Your task to perform on an android device: check storage Image 0: 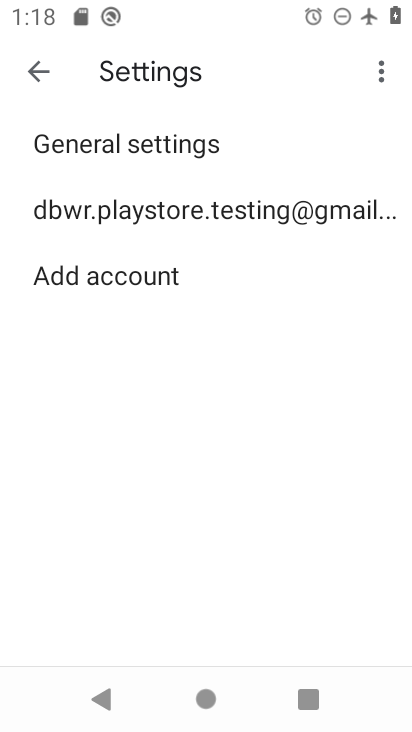
Step 0: press home button
Your task to perform on an android device: check storage Image 1: 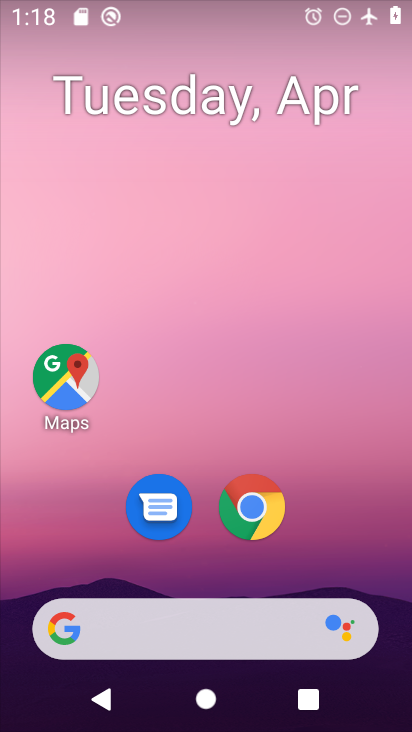
Step 1: click (260, 511)
Your task to perform on an android device: check storage Image 2: 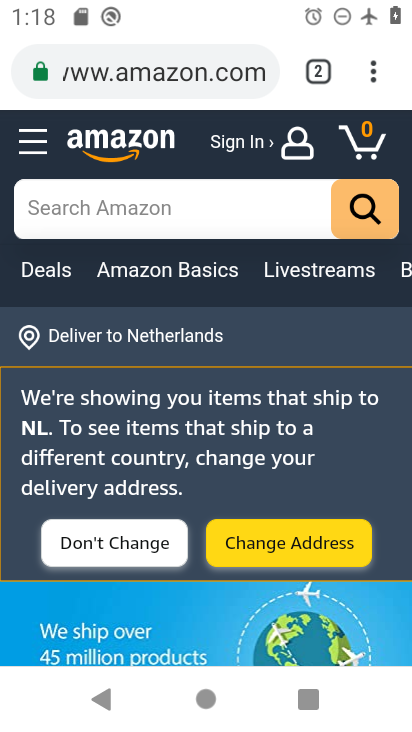
Step 2: click (375, 91)
Your task to perform on an android device: check storage Image 3: 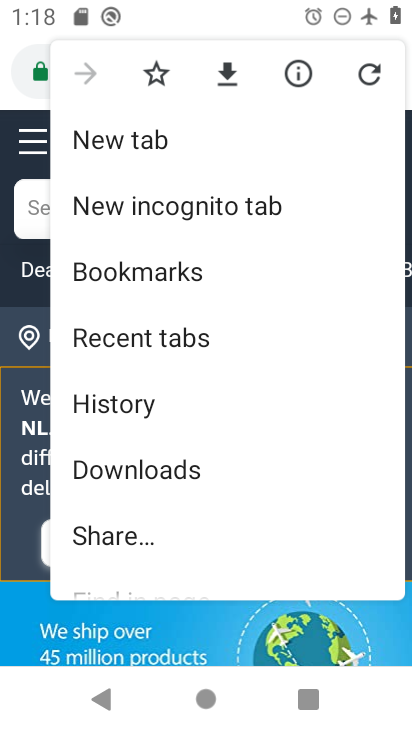
Step 3: press home button
Your task to perform on an android device: check storage Image 4: 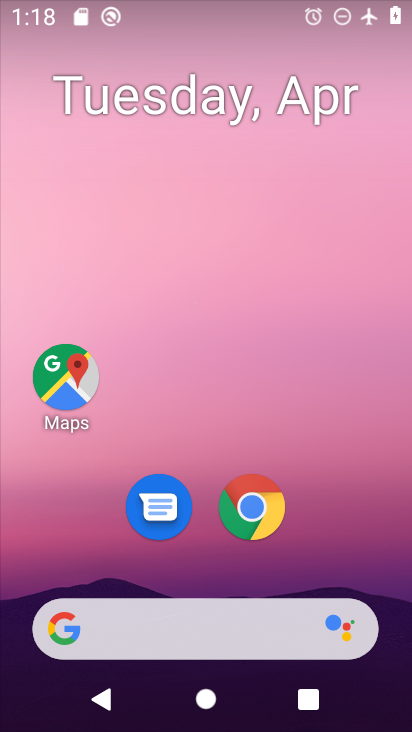
Step 4: drag from (309, 538) to (219, 26)
Your task to perform on an android device: check storage Image 5: 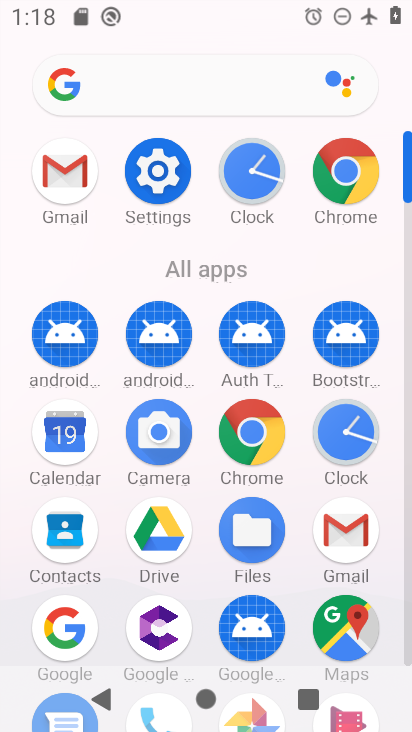
Step 5: click (167, 170)
Your task to perform on an android device: check storage Image 6: 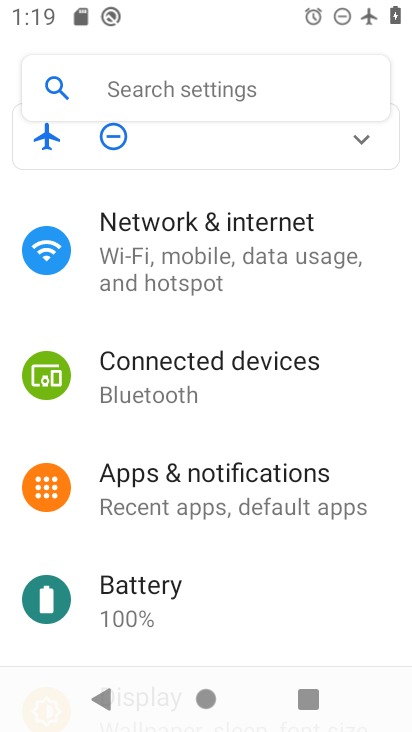
Step 6: drag from (224, 559) to (224, 261)
Your task to perform on an android device: check storage Image 7: 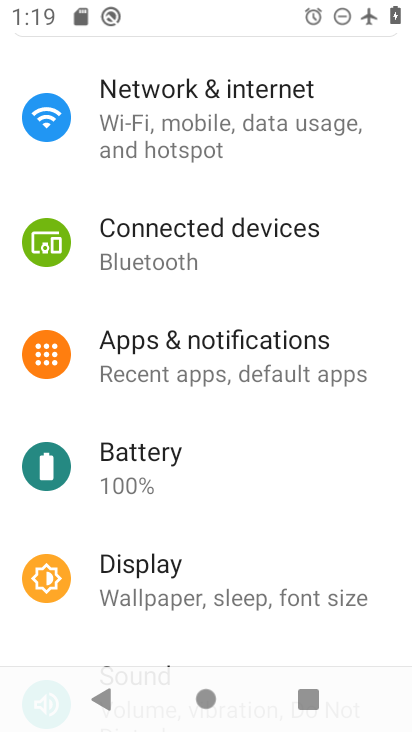
Step 7: drag from (269, 580) to (271, 278)
Your task to perform on an android device: check storage Image 8: 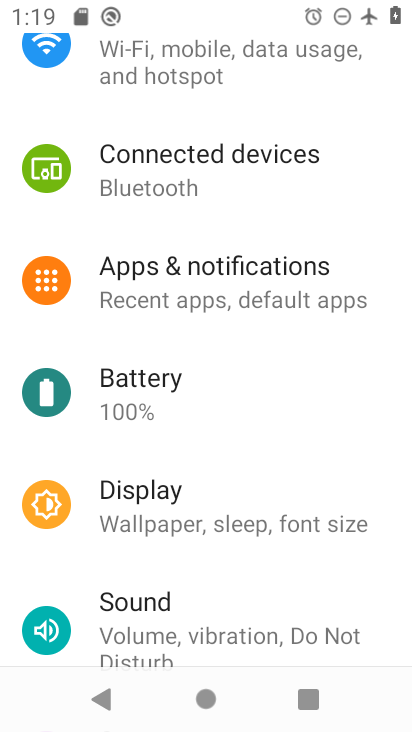
Step 8: drag from (226, 585) to (247, 237)
Your task to perform on an android device: check storage Image 9: 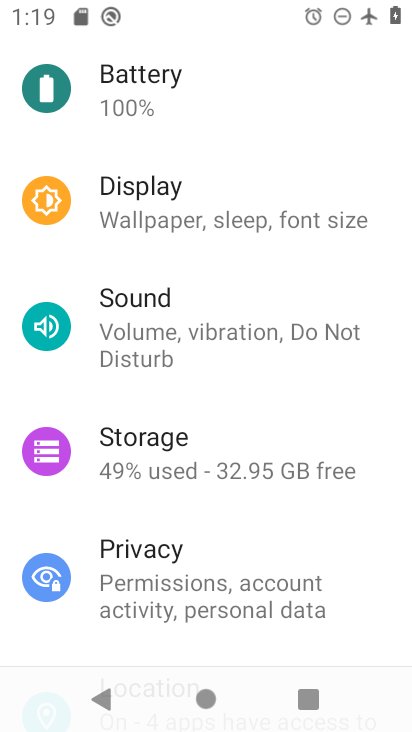
Step 9: click (293, 475)
Your task to perform on an android device: check storage Image 10: 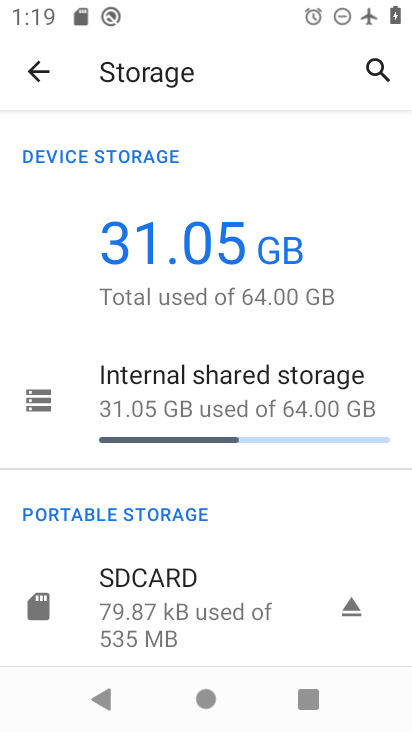
Step 10: task complete